Your task to perform on an android device: Go to Yahoo.com Image 0: 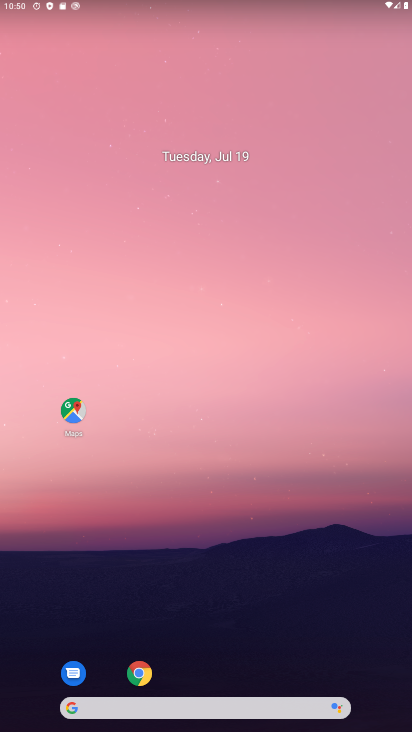
Step 0: click (143, 677)
Your task to perform on an android device: Go to Yahoo.com Image 1: 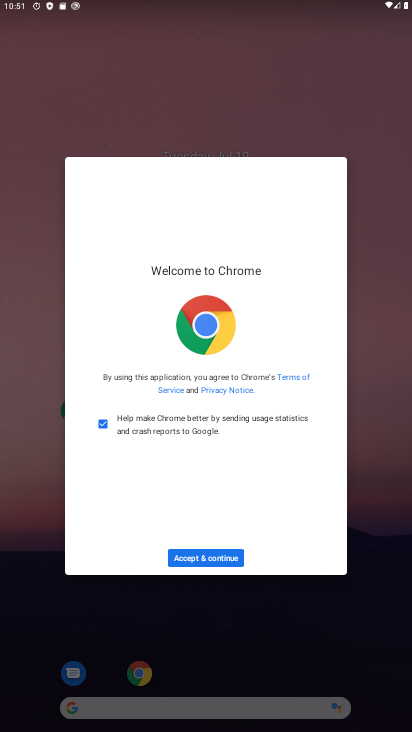
Step 1: click (213, 562)
Your task to perform on an android device: Go to Yahoo.com Image 2: 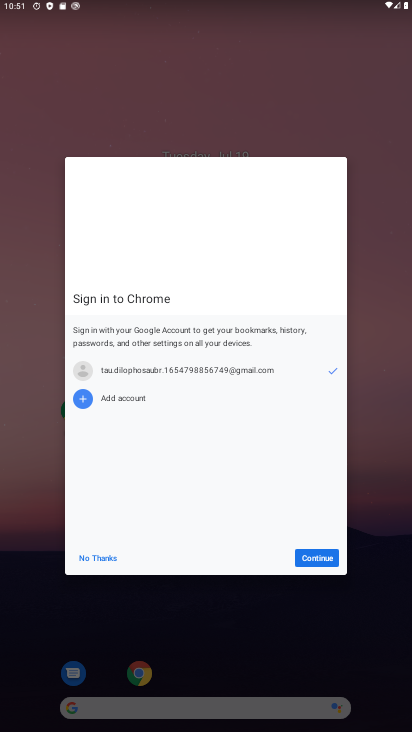
Step 2: click (313, 559)
Your task to perform on an android device: Go to Yahoo.com Image 3: 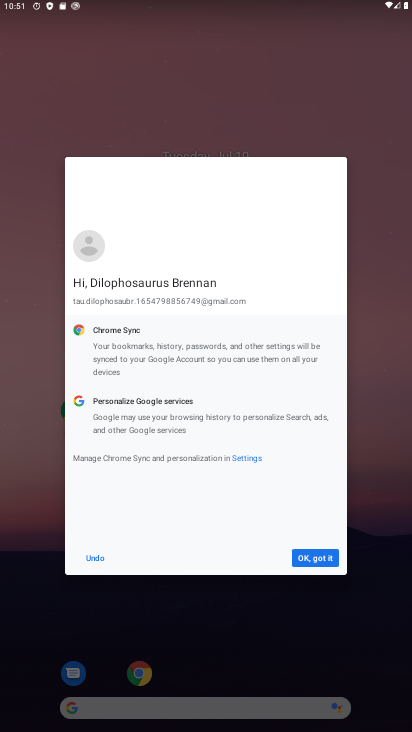
Step 3: click (313, 559)
Your task to perform on an android device: Go to Yahoo.com Image 4: 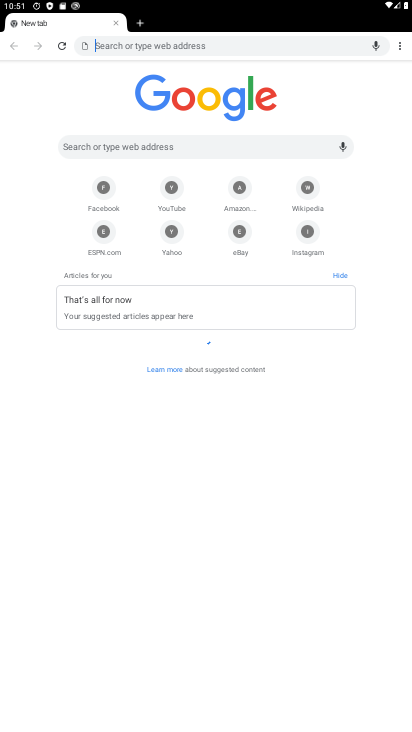
Step 4: click (178, 235)
Your task to perform on an android device: Go to Yahoo.com Image 5: 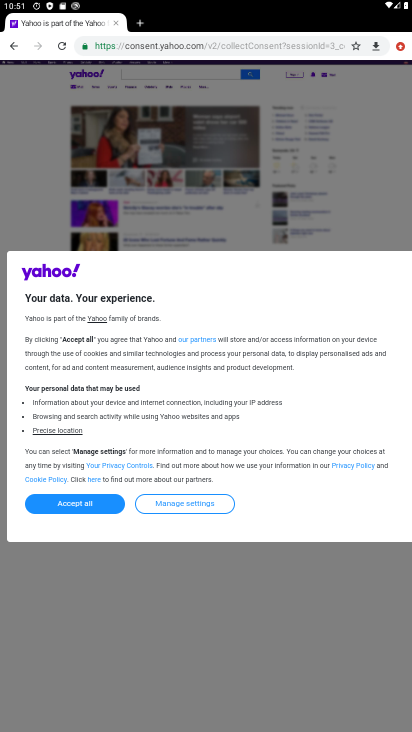
Step 5: click (96, 509)
Your task to perform on an android device: Go to Yahoo.com Image 6: 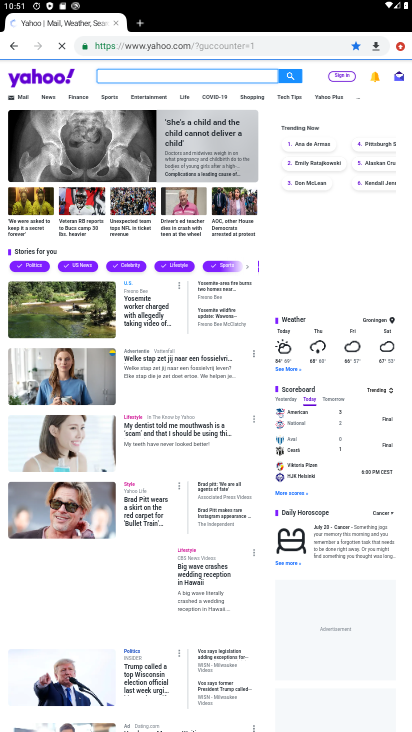
Step 6: task complete